Your task to perform on an android device: Is it going to rain tomorrow? Image 0: 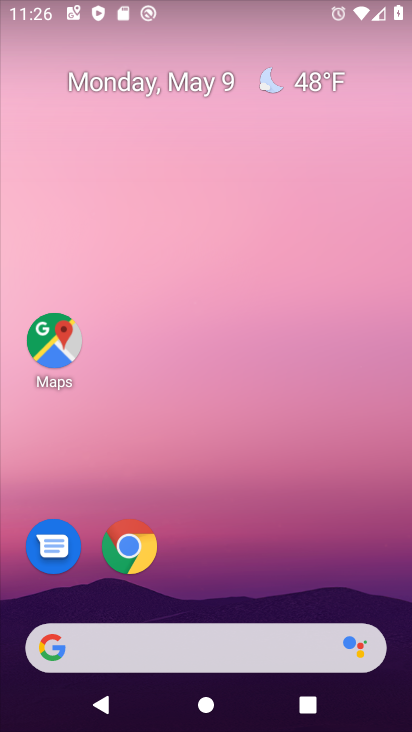
Step 0: click (308, 93)
Your task to perform on an android device: Is it going to rain tomorrow? Image 1: 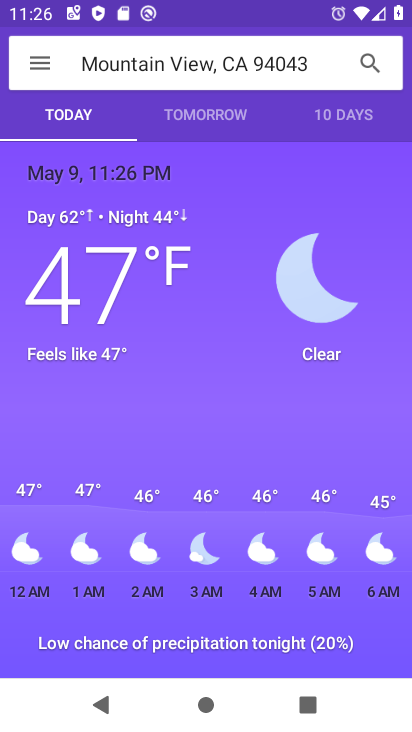
Step 1: click (182, 109)
Your task to perform on an android device: Is it going to rain tomorrow? Image 2: 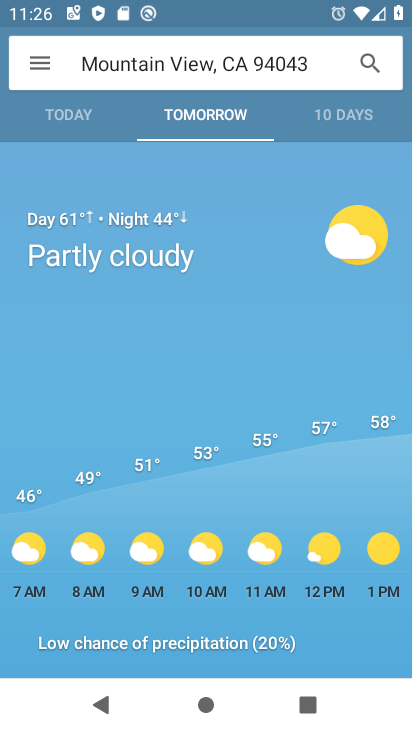
Step 2: task complete